Your task to perform on an android device: Open Chrome and go to the settings page Image 0: 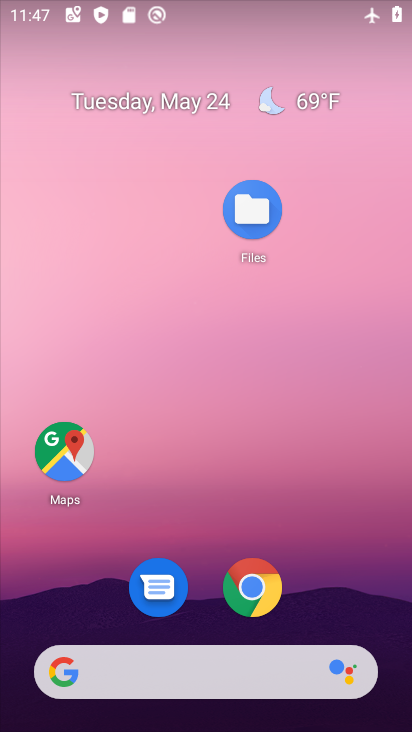
Step 0: click (260, 569)
Your task to perform on an android device: Open Chrome and go to the settings page Image 1: 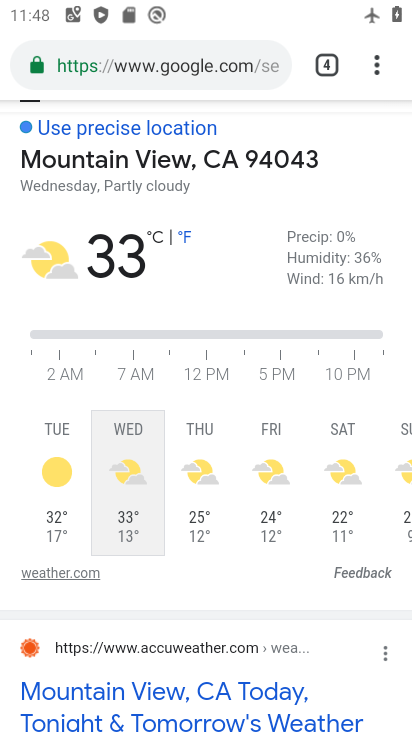
Step 1: click (375, 65)
Your task to perform on an android device: Open Chrome and go to the settings page Image 2: 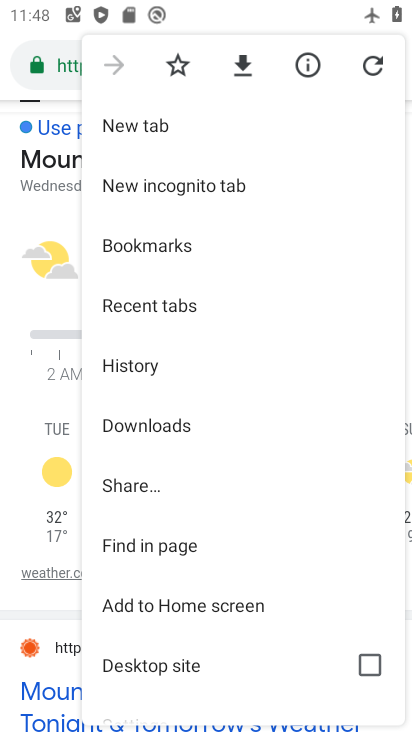
Step 2: drag from (241, 651) to (279, 246)
Your task to perform on an android device: Open Chrome and go to the settings page Image 3: 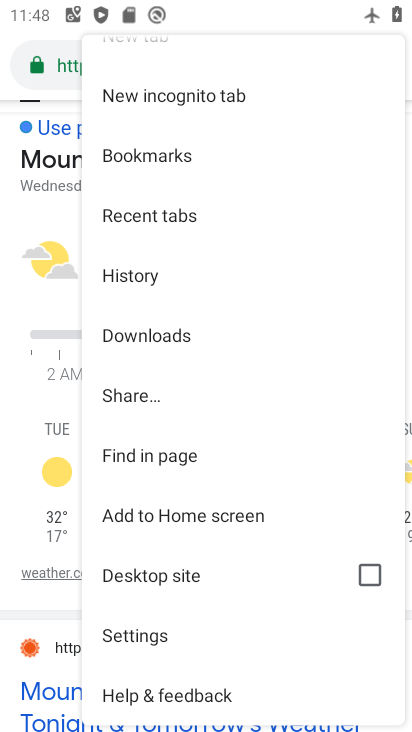
Step 3: click (142, 637)
Your task to perform on an android device: Open Chrome and go to the settings page Image 4: 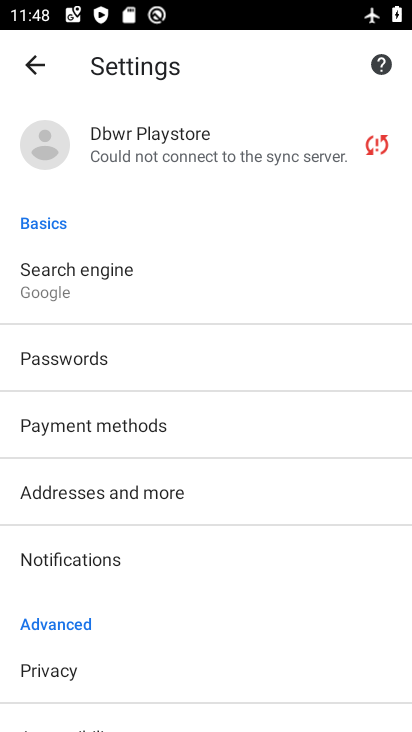
Step 4: task complete